Your task to perform on an android device: change notification settings in the gmail app Image 0: 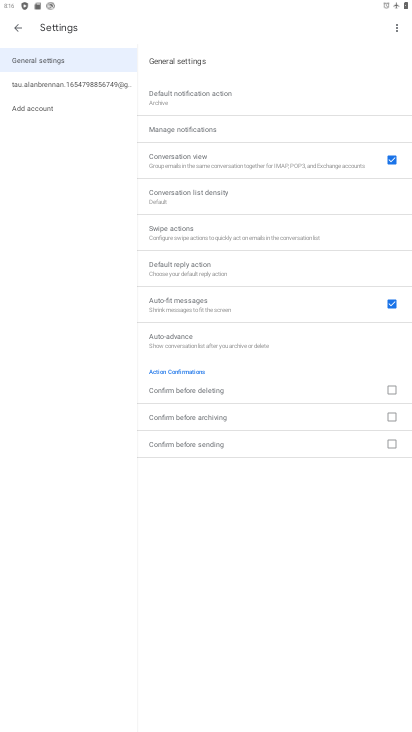
Step 0: click (8, 30)
Your task to perform on an android device: change notification settings in the gmail app Image 1: 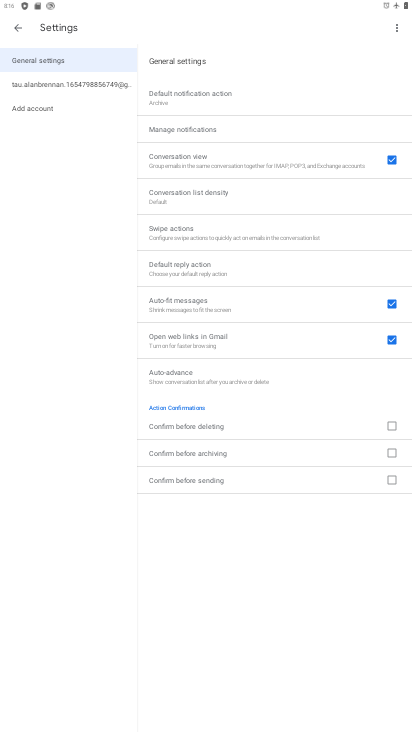
Step 1: click (79, 89)
Your task to perform on an android device: change notification settings in the gmail app Image 2: 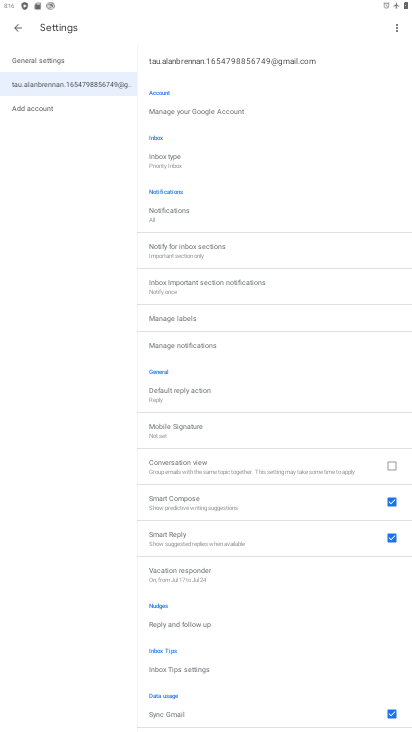
Step 2: click (173, 224)
Your task to perform on an android device: change notification settings in the gmail app Image 3: 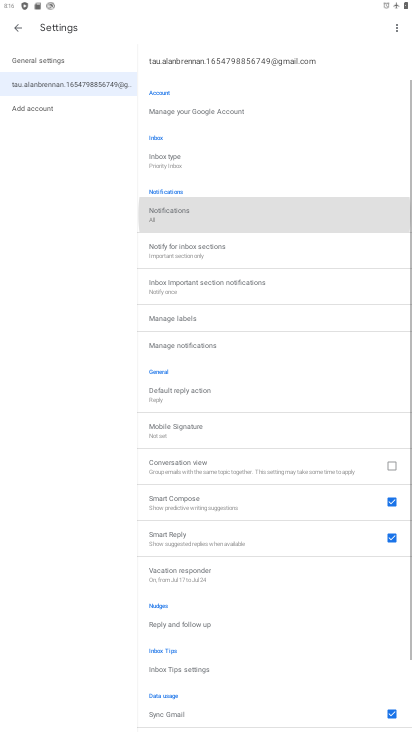
Step 3: click (181, 225)
Your task to perform on an android device: change notification settings in the gmail app Image 4: 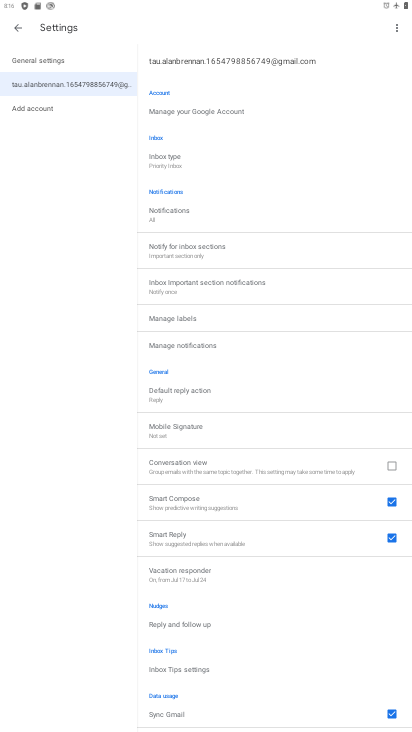
Step 4: click (168, 216)
Your task to perform on an android device: change notification settings in the gmail app Image 5: 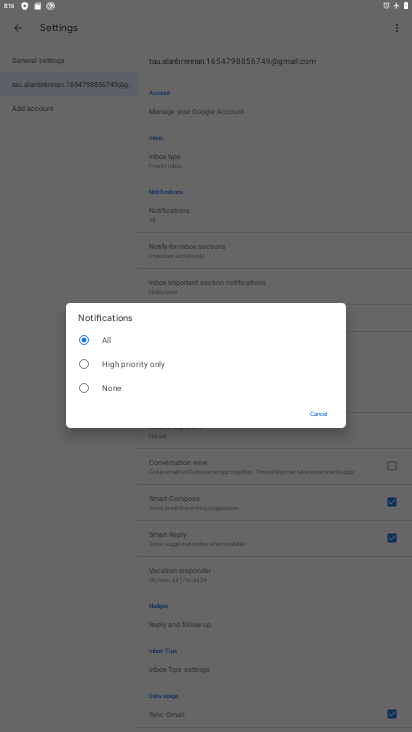
Step 5: click (83, 369)
Your task to perform on an android device: change notification settings in the gmail app Image 6: 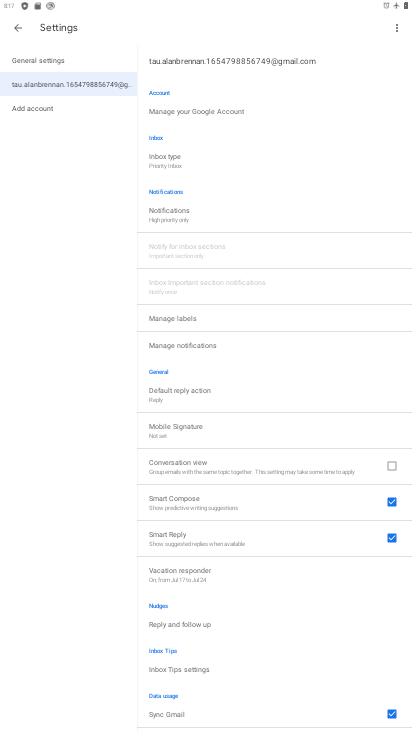
Step 6: task complete